Your task to perform on an android device: open sync settings in chrome Image 0: 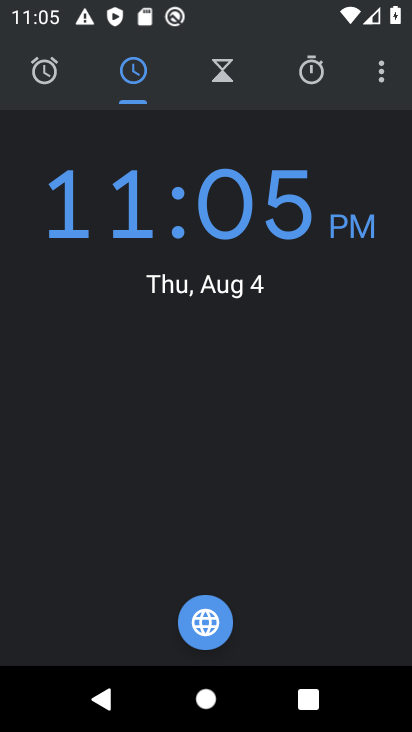
Step 0: press home button
Your task to perform on an android device: open sync settings in chrome Image 1: 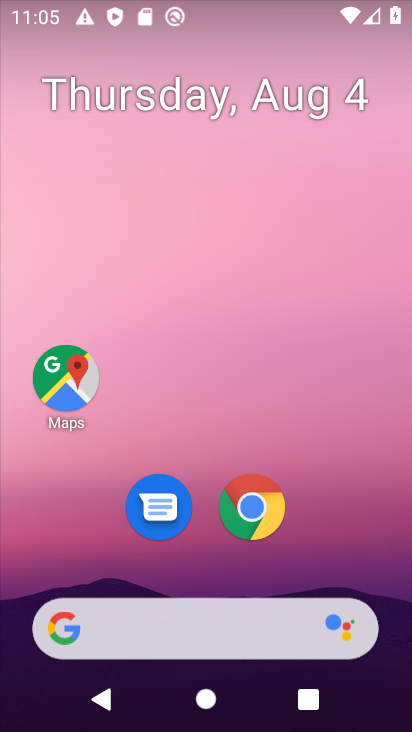
Step 1: click (228, 538)
Your task to perform on an android device: open sync settings in chrome Image 2: 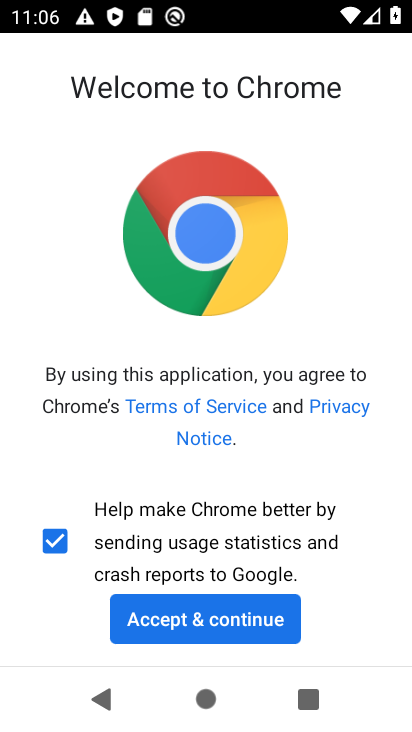
Step 2: click (200, 620)
Your task to perform on an android device: open sync settings in chrome Image 3: 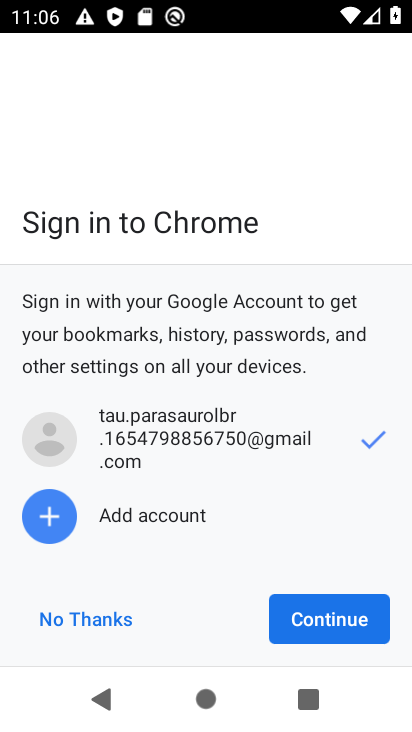
Step 3: click (318, 613)
Your task to perform on an android device: open sync settings in chrome Image 4: 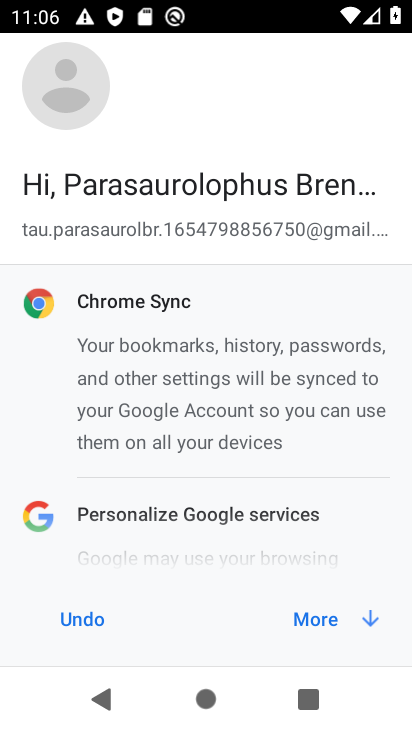
Step 4: click (318, 613)
Your task to perform on an android device: open sync settings in chrome Image 5: 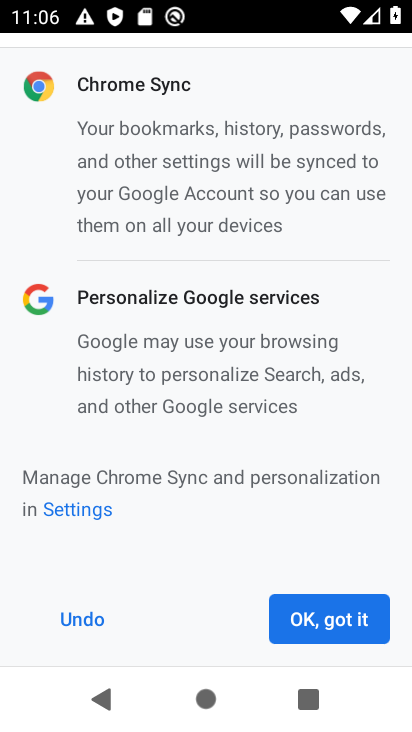
Step 5: click (318, 613)
Your task to perform on an android device: open sync settings in chrome Image 6: 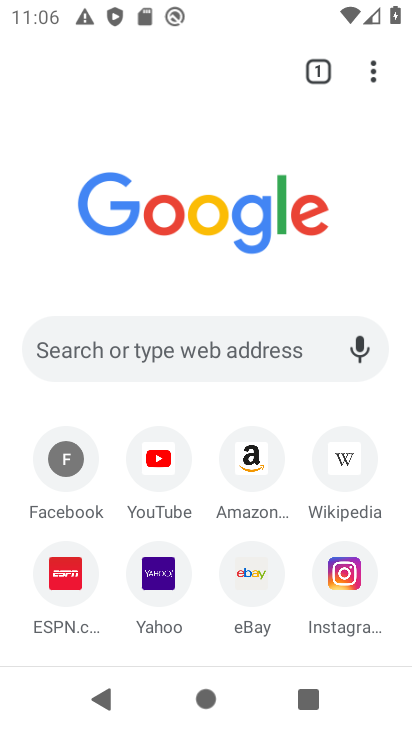
Step 6: click (369, 71)
Your task to perform on an android device: open sync settings in chrome Image 7: 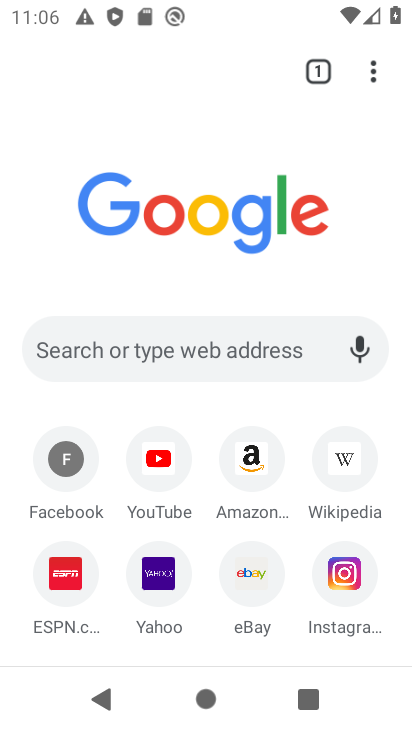
Step 7: click (369, 68)
Your task to perform on an android device: open sync settings in chrome Image 8: 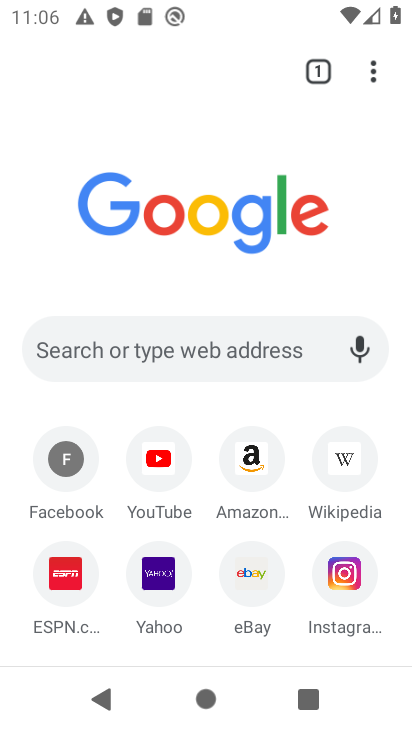
Step 8: click (368, 76)
Your task to perform on an android device: open sync settings in chrome Image 9: 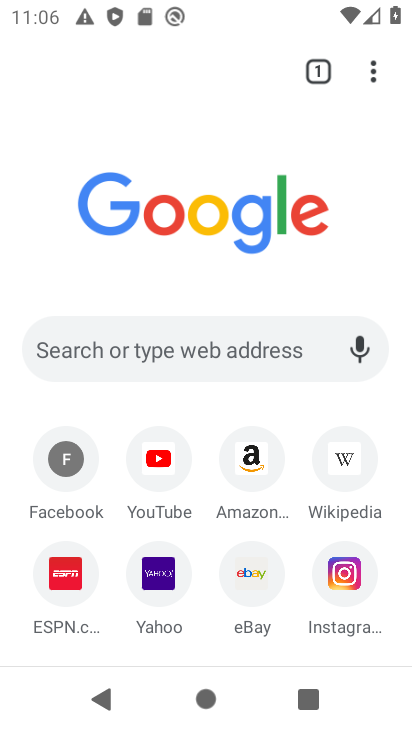
Step 9: click (375, 75)
Your task to perform on an android device: open sync settings in chrome Image 10: 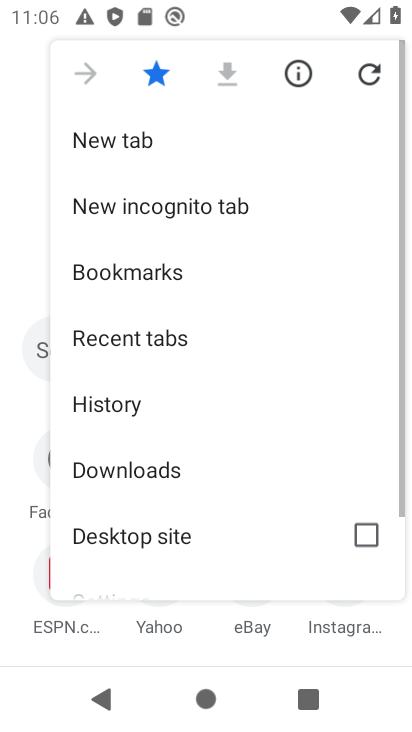
Step 10: drag from (236, 501) to (236, 216)
Your task to perform on an android device: open sync settings in chrome Image 11: 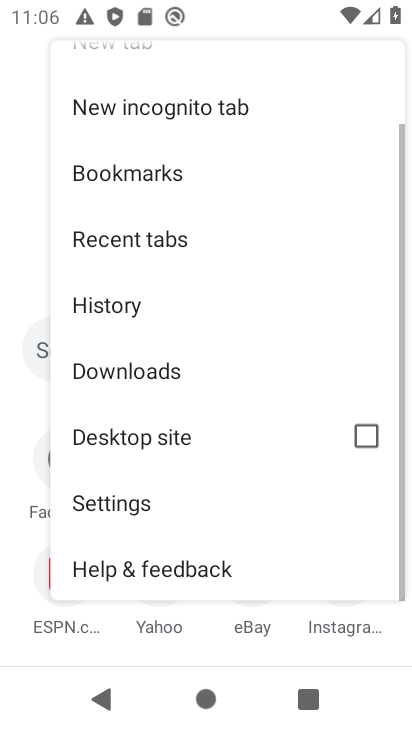
Step 11: click (217, 470)
Your task to perform on an android device: open sync settings in chrome Image 12: 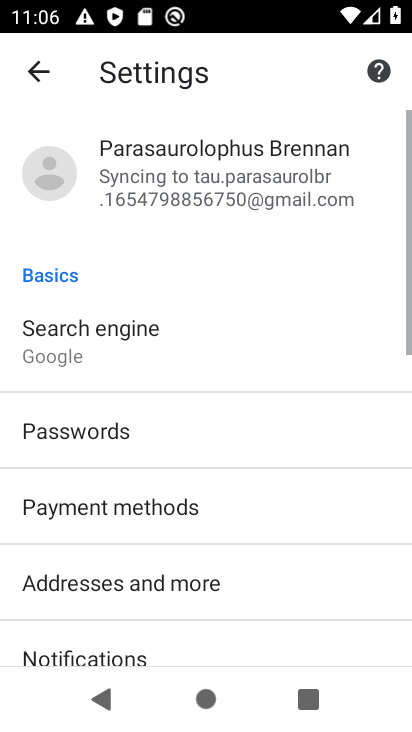
Step 12: drag from (217, 470) to (291, 95)
Your task to perform on an android device: open sync settings in chrome Image 13: 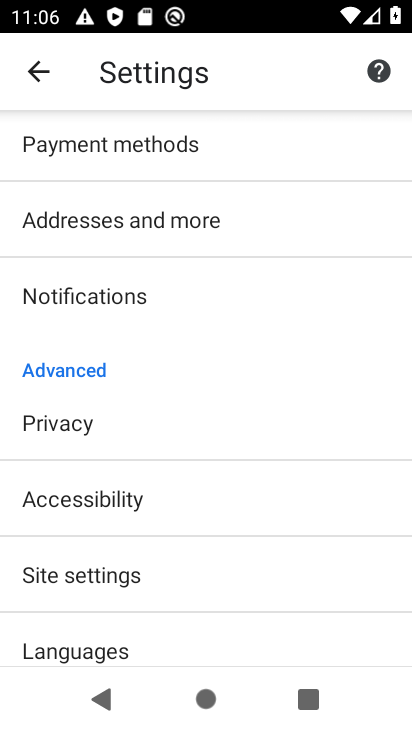
Step 13: drag from (213, 422) to (159, 152)
Your task to perform on an android device: open sync settings in chrome Image 14: 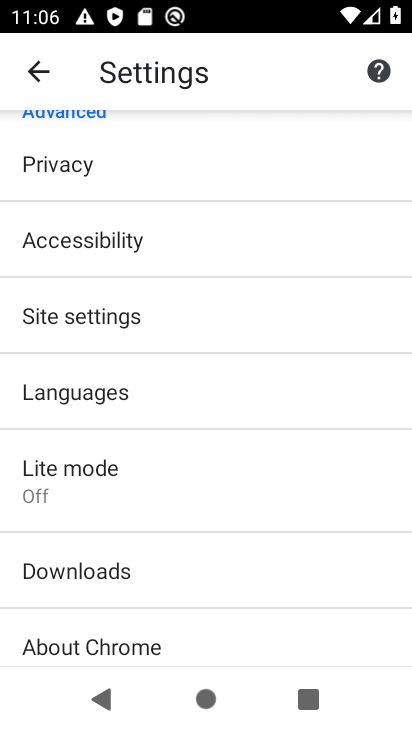
Step 14: click (155, 298)
Your task to perform on an android device: open sync settings in chrome Image 15: 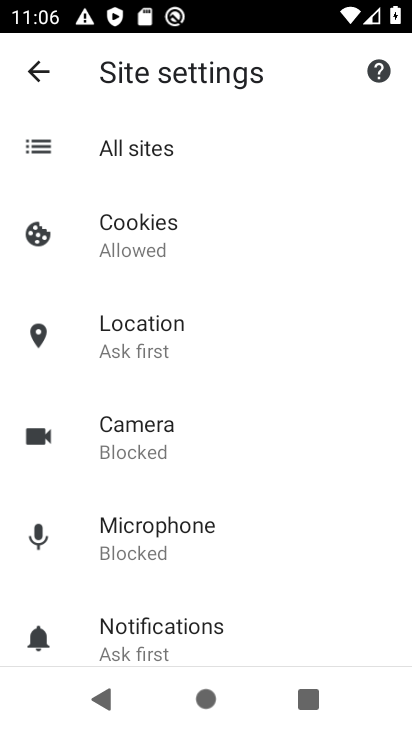
Step 15: drag from (150, 611) to (167, 235)
Your task to perform on an android device: open sync settings in chrome Image 16: 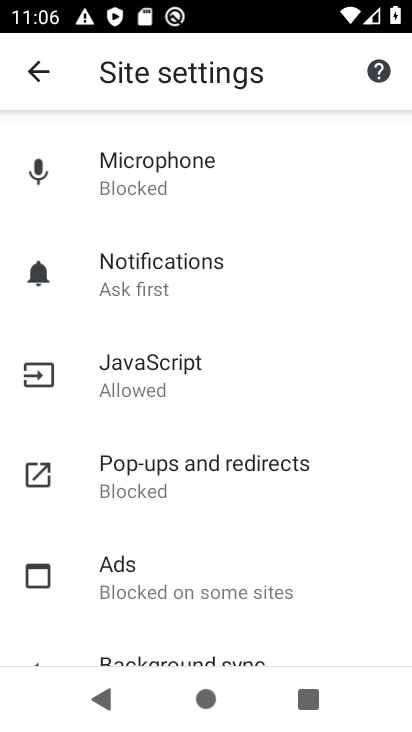
Step 16: drag from (134, 586) to (173, 259)
Your task to perform on an android device: open sync settings in chrome Image 17: 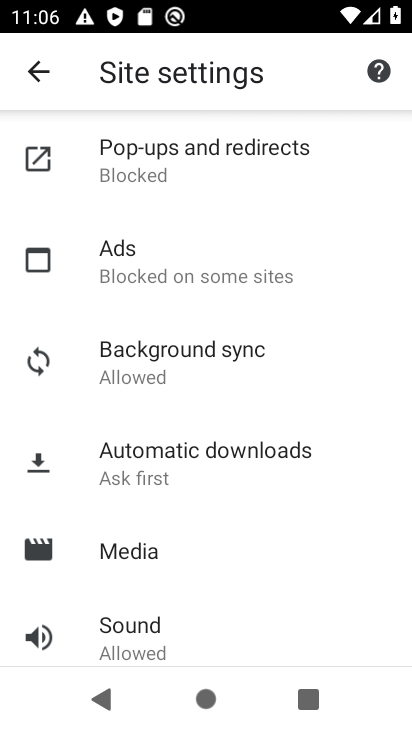
Step 17: click (154, 359)
Your task to perform on an android device: open sync settings in chrome Image 18: 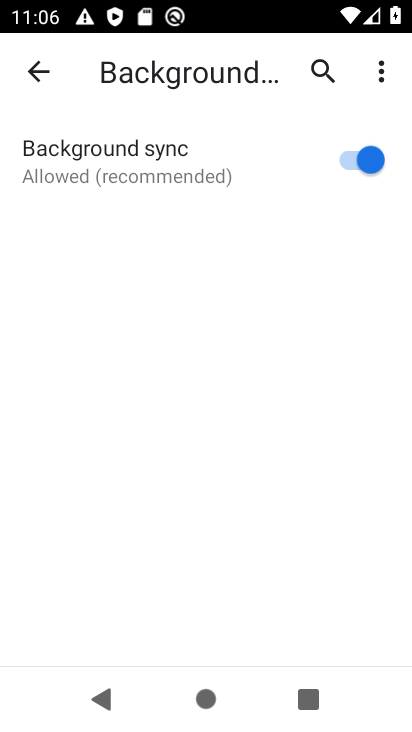
Step 18: task complete